Your task to perform on an android device: Do I have any events tomorrow? Image 0: 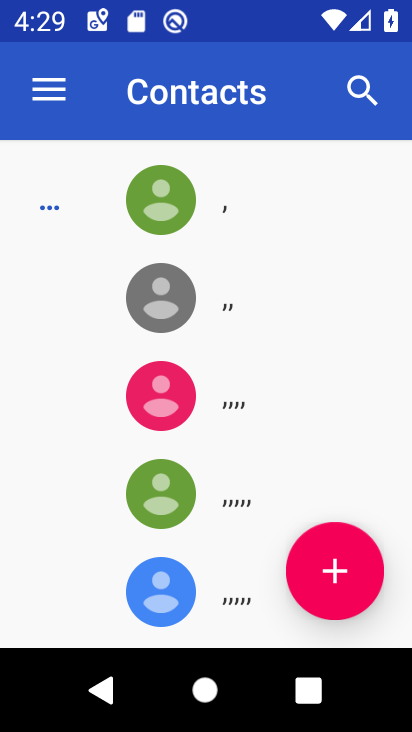
Step 0: press home button
Your task to perform on an android device: Do I have any events tomorrow? Image 1: 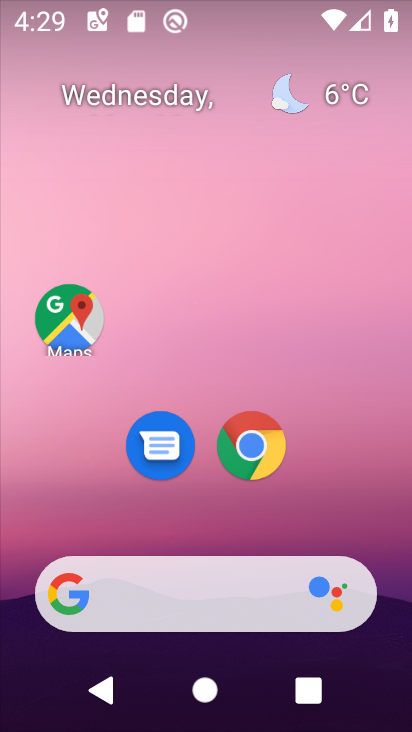
Step 1: drag from (191, 507) to (278, 9)
Your task to perform on an android device: Do I have any events tomorrow? Image 2: 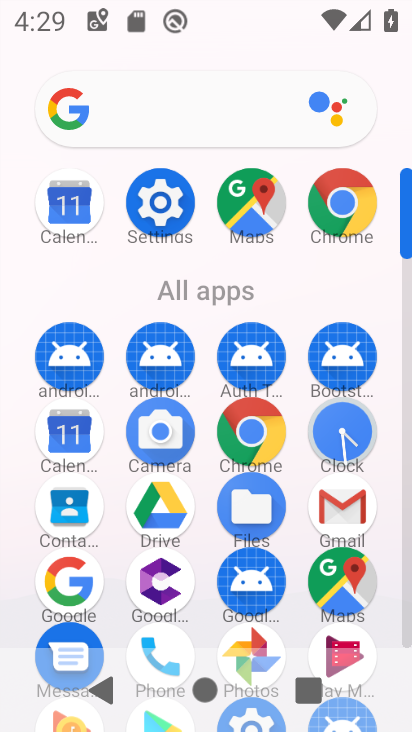
Step 2: click (69, 453)
Your task to perform on an android device: Do I have any events tomorrow? Image 3: 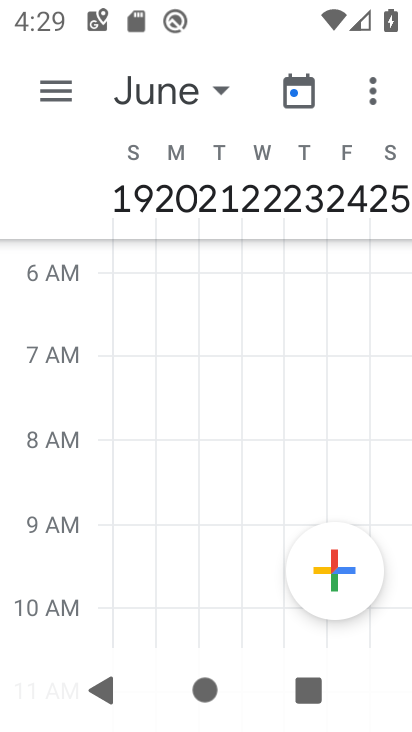
Step 3: click (162, 81)
Your task to perform on an android device: Do I have any events tomorrow? Image 4: 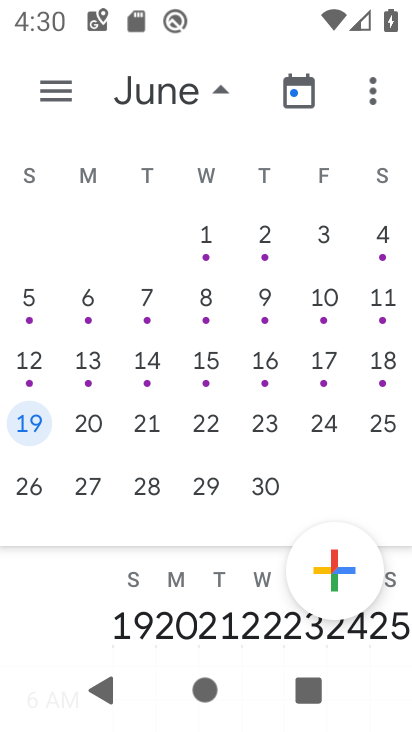
Step 4: drag from (53, 319) to (332, 342)
Your task to perform on an android device: Do I have any events tomorrow? Image 5: 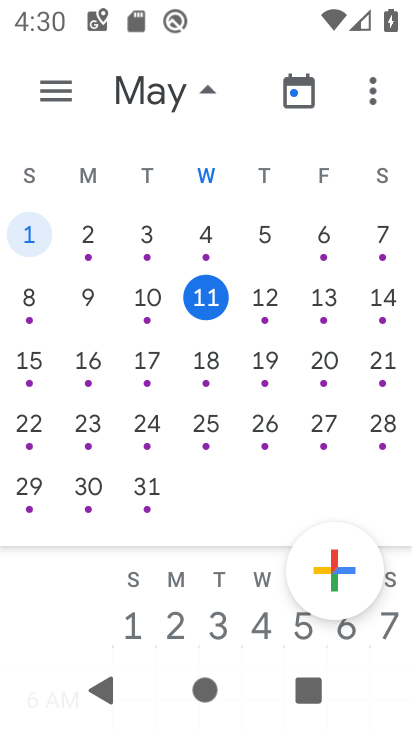
Step 5: click (211, 297)
Your task to perform on an android device: Do I have any events tomorrow? Image 6: 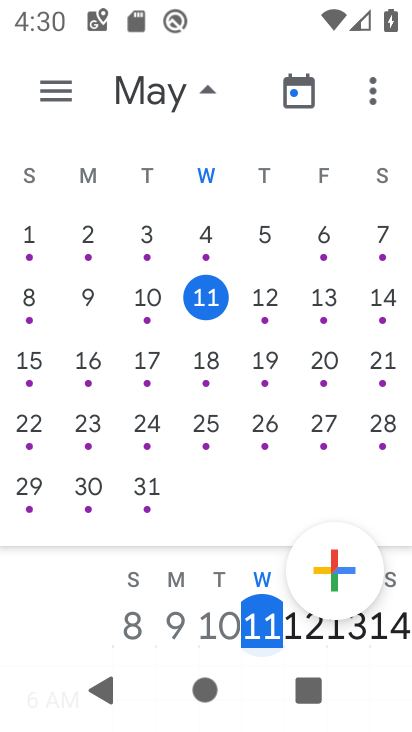
Step 6: click (71, 88)
Your task to perform on an android device: Do I have any events tomorrow? Image 7: 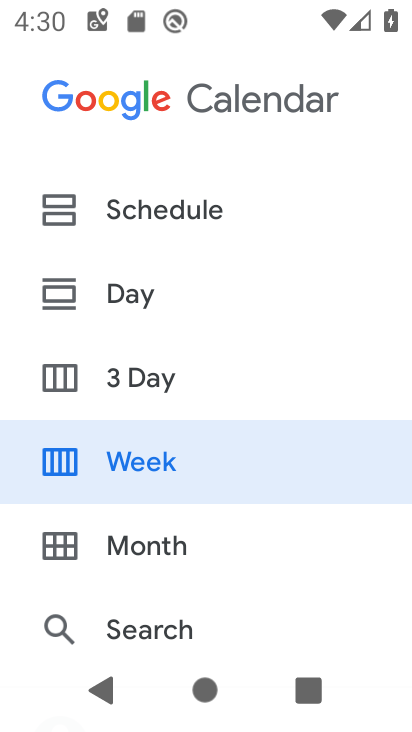
Step 7: drag from (177, 554) to (248, 274)
Your task to perform on an android device: Do I have any events tomorrow? Image 8: 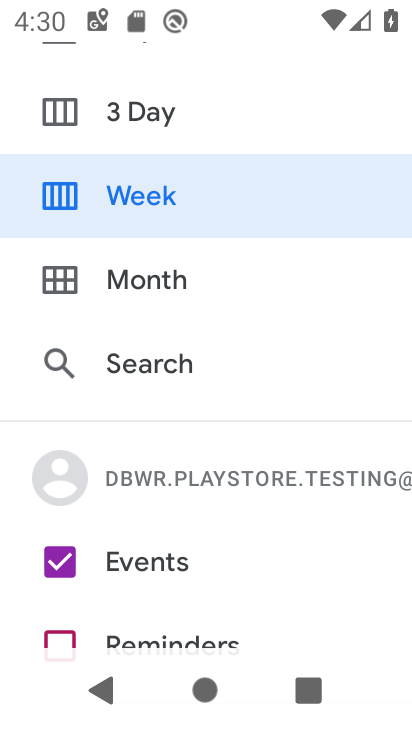
Step 8: drag from (114, 576) to (149, 683)
Your task to perform on an android device: Do I have any events tomorrow? Image 9: 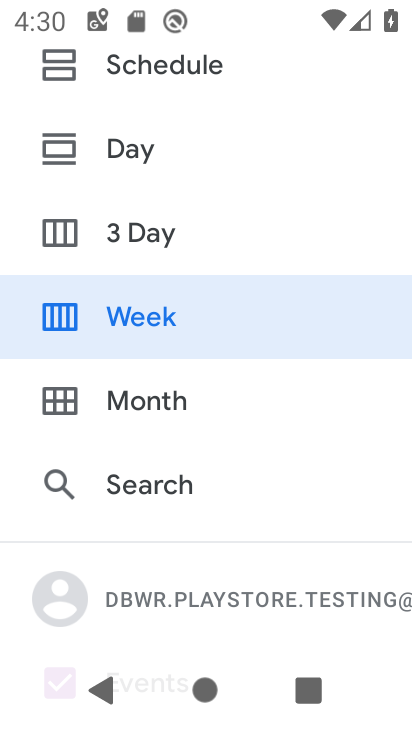
Step 9: click (136, 232)
Your task to perform on an android device: Do I have any events tomorrow? Image 10: 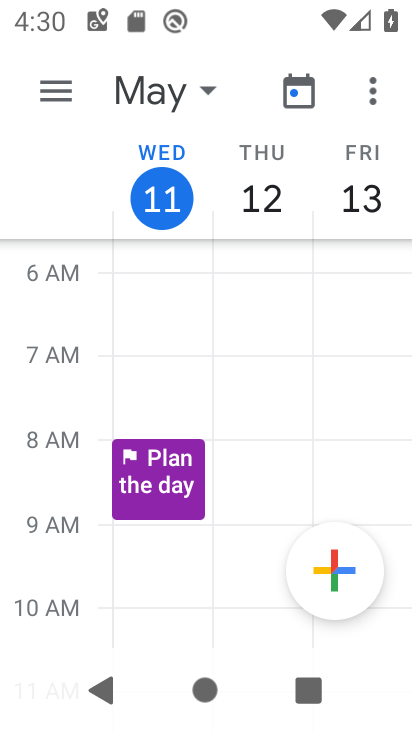
Step 10: task complete